Your task to perform on an android device: What's the weather going to be tomorrow? Image 0: 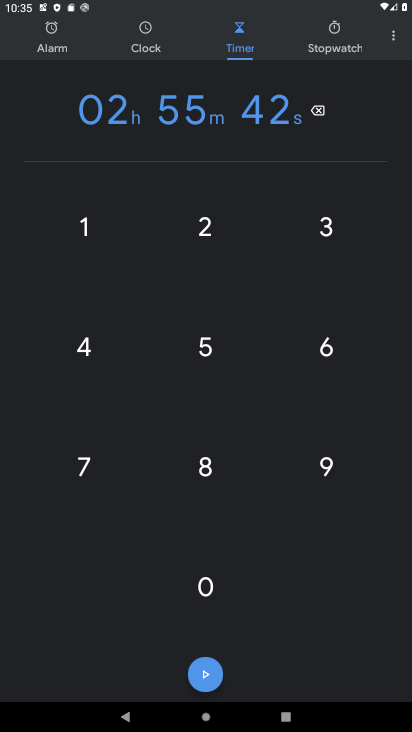
Step 0: press home button
Your task to perform on an android device: What's the weather going to be tomorrow? Image 1: 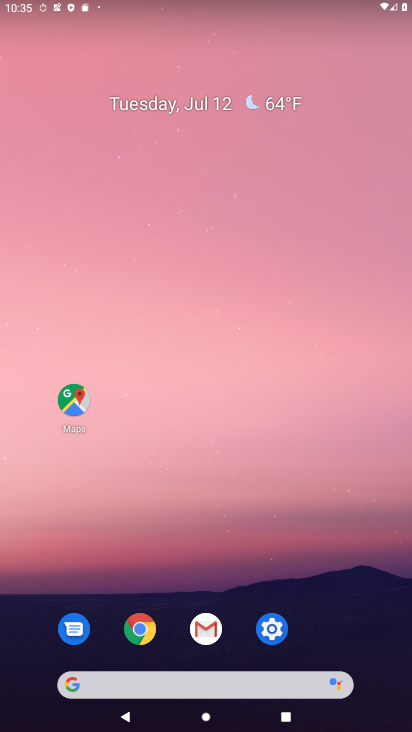
Step 1: click (193, 685)
Your task to perform on an android device: What's the weather going to be tomorrow? Image 2: 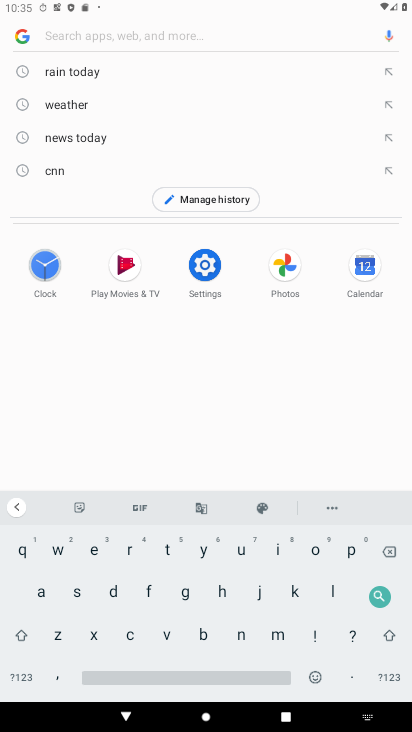
Step 2: click (96, 95)
Your task to perform on an android device: What's the weather going to be tomorrow? Image 3: 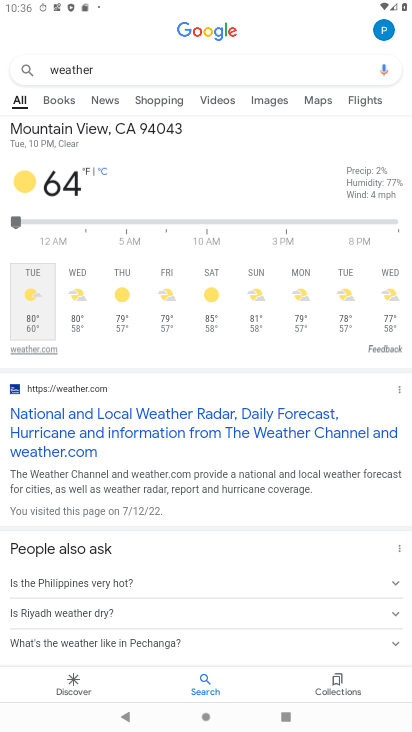
Step 3: click (89, 278)
Your task to perform on an android device: What's the weather going to be tomorrow? Image 4: 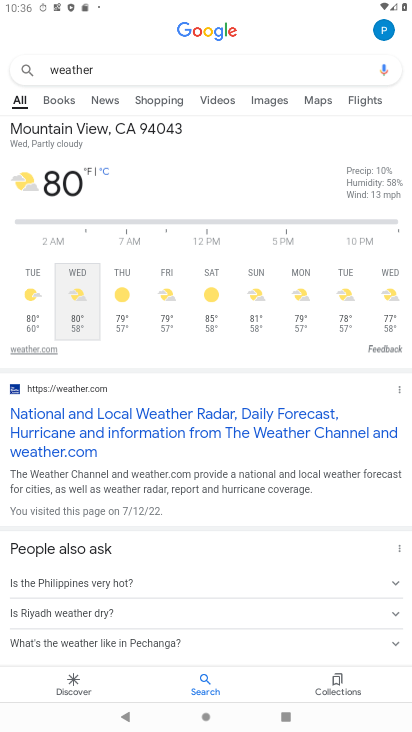
Step 4: task complete